Your task to perform on an android device: turn on airplane mode Image 0: 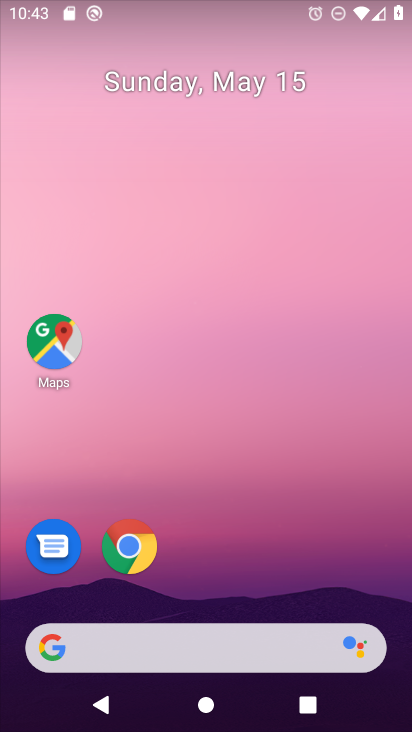
Step 0: drag from (258, 7) to (336, 578)
Your task to perform on an android device: turn on airplane mode Image 1: 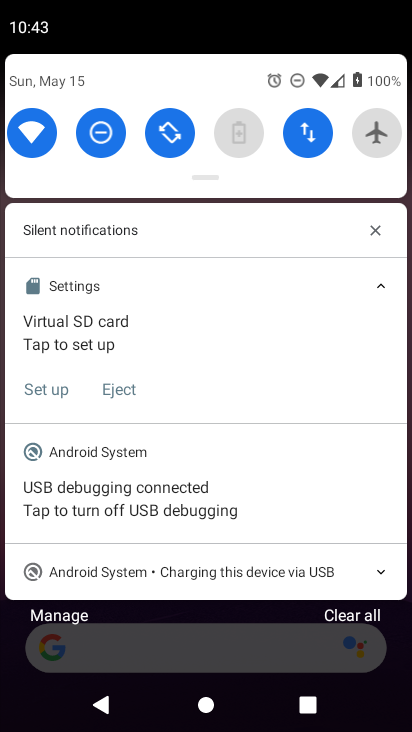
Step 1: click (362, 136)
Your task to perform on an android device: turn on airplane mode Image 2: 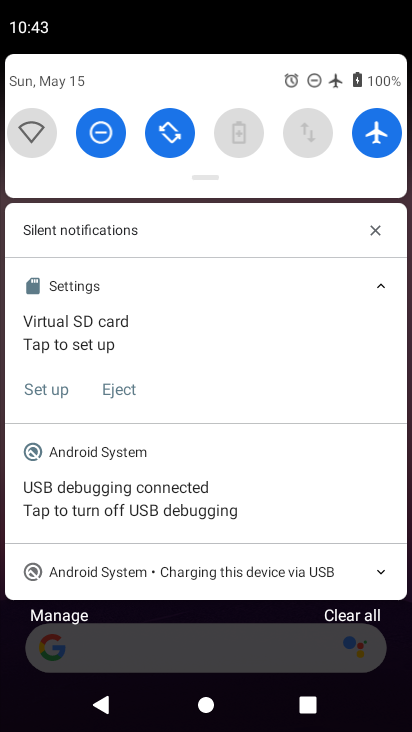
Step 2: task complete